Your task to perform on an android device: Open display settings Image 0: 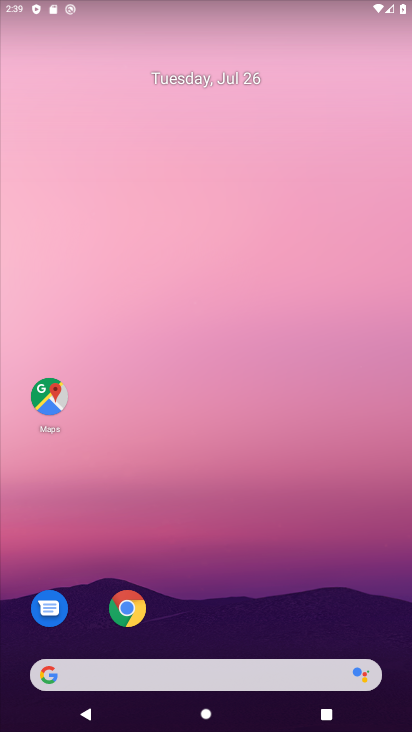
Step 0: drag from (198, 533) to (194, 11)
Your task to perform on an android device: Open display settings Image 1: 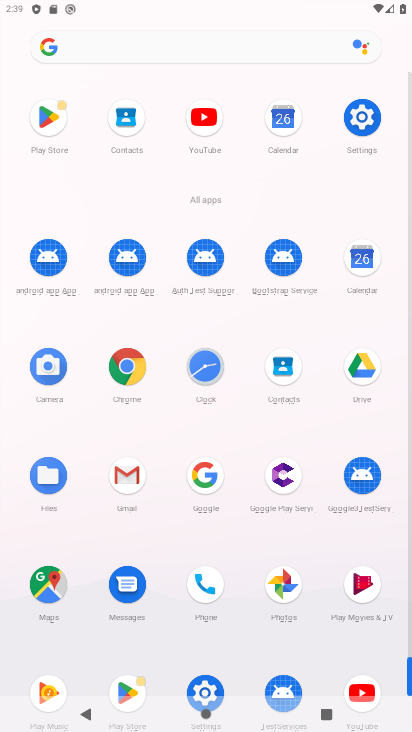
Step 1: click (372, 128)
Your task to perform on an android device: Open display settings Image 2: 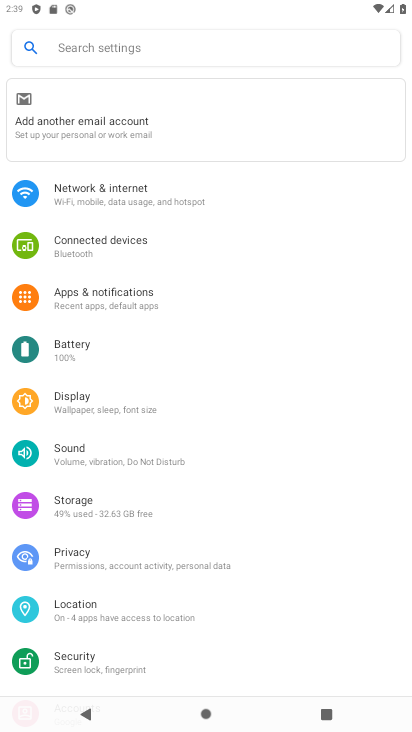
Step 2: click (81, 396)
Your task to perform on an android device: Open display settings Image 3: 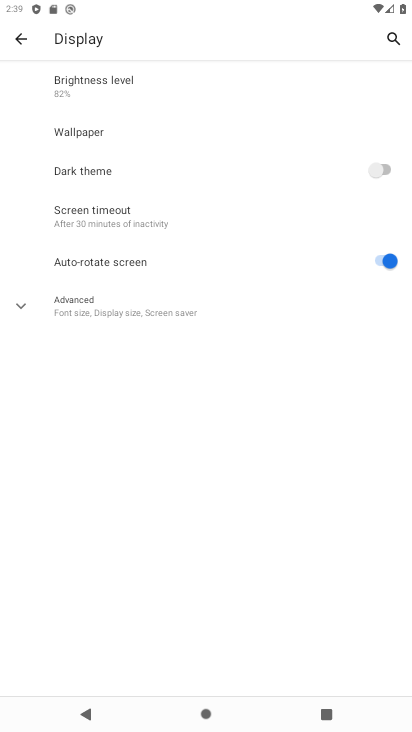
Step 3: task complete